Your task to perform on an android device: Open settings on Google Maps Image 0: 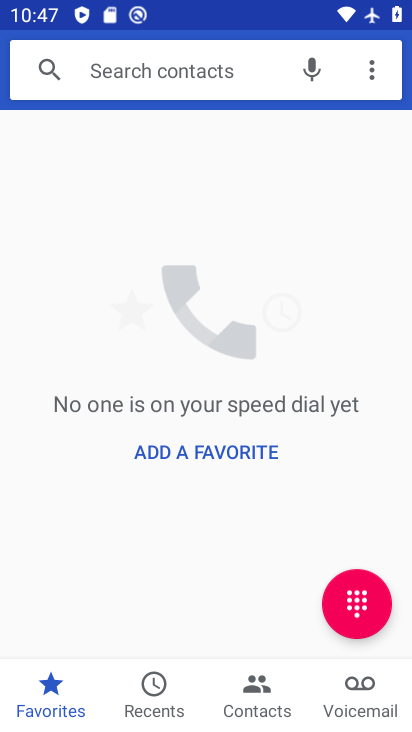
Step 0: press back button
Your task to perform on an android device: Open settings on Google Maps Image 1: 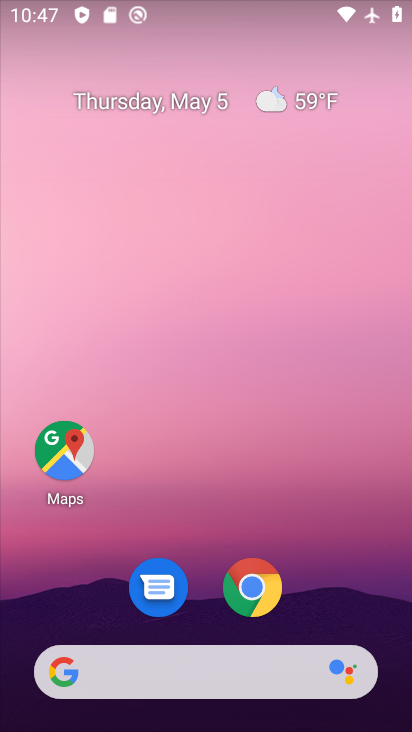
Step 1: drag from (322, 571) to (252, 3)
Your task to perform on an android device: Open settings on Google Maps Image 2: 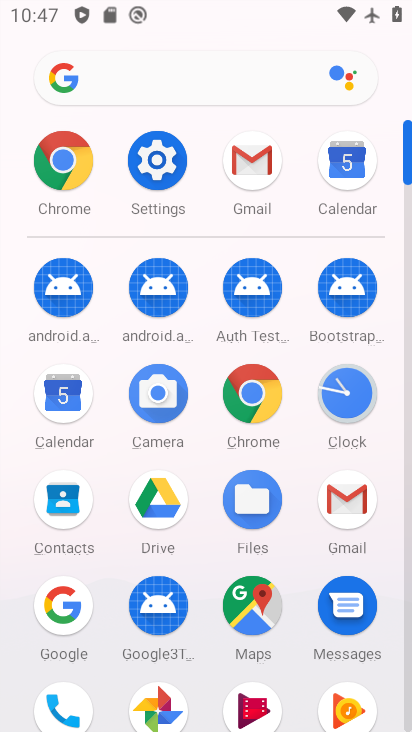
Step 2: drag from (12, 619) to (27, 207)
Your task to perform on an android device: Open settings on Google Maps Image 3: 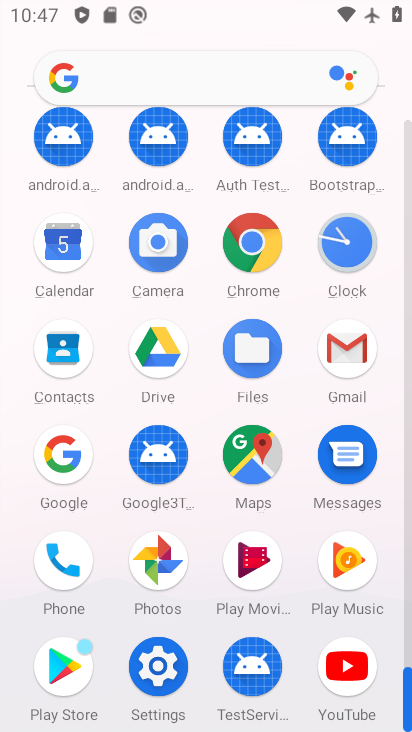
Step 3: click (252, 453)
Your task to perform on an android device: Open settings on Google Maps Image 4: 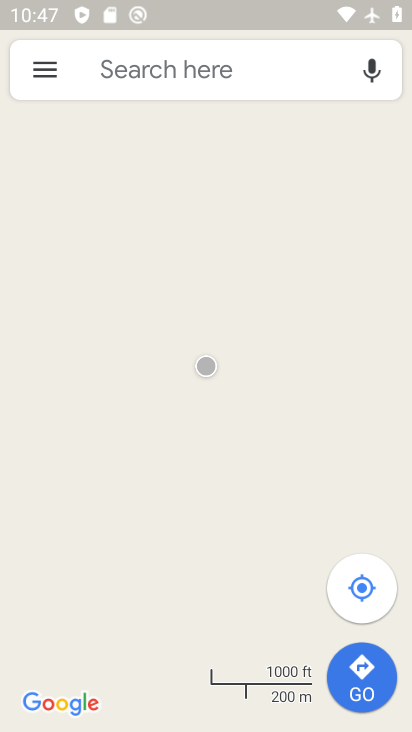
Step 4: click (267, 74)
Your task to perform on an android device: Open settings on Google Maps Image 5: 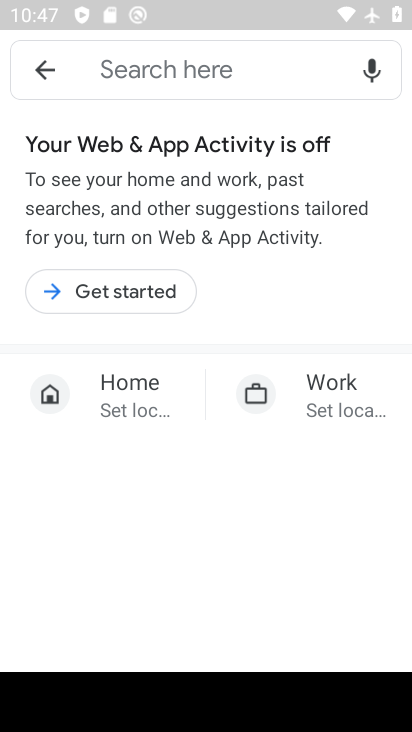
Step 5: click (44, 58)
Your task to perform on an android device: Open settings on Google Maps Image 6: 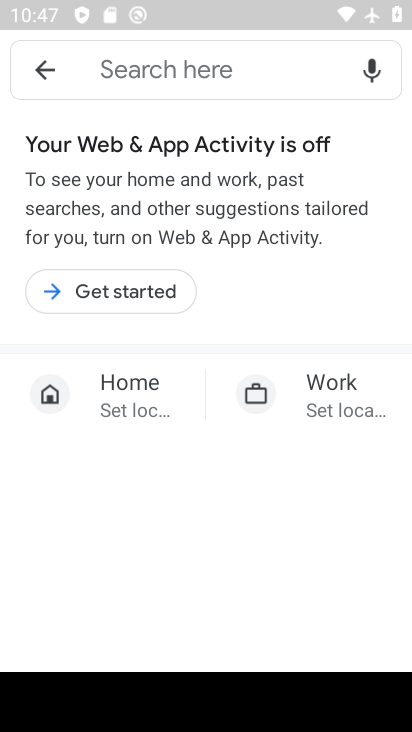
Step 6: click (39, 62)
Your task to perform on an android device: Open settings on Google Maps Image 7: 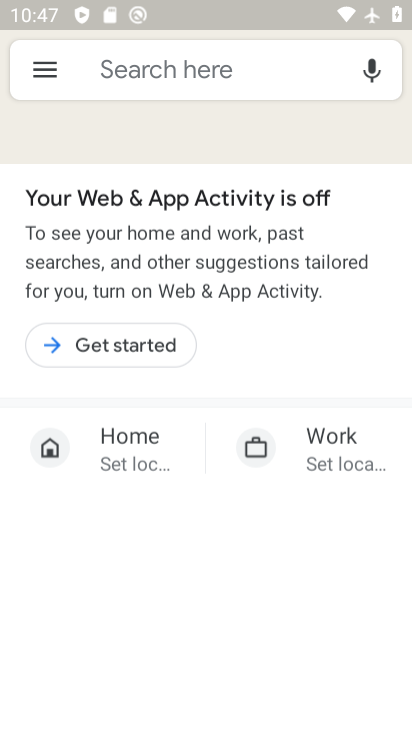
Step 7: click (39, 62)
Your task to perform on an android device: Open settings on Google Maps Image 8: 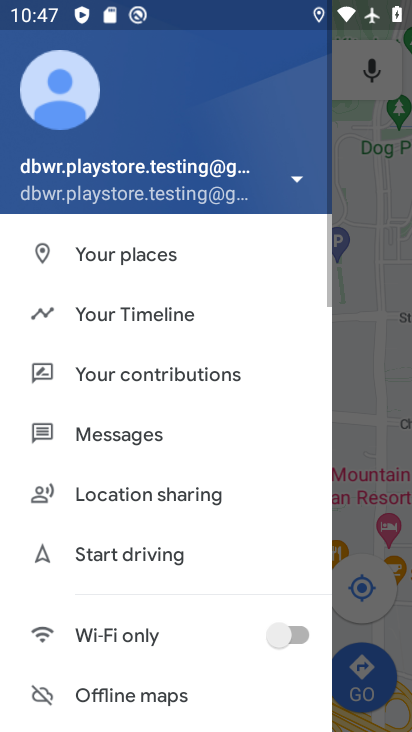
Step 8: click (39, 62)
Your task to perform on an android device: Open settings on Google Maps Image 9: 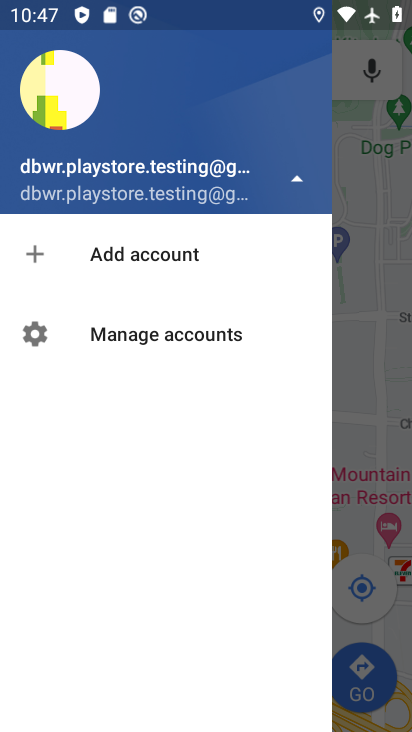
Step 9: click (118, 332)
Your task to perform on an android device: Open settings on Google Maps Image 10: 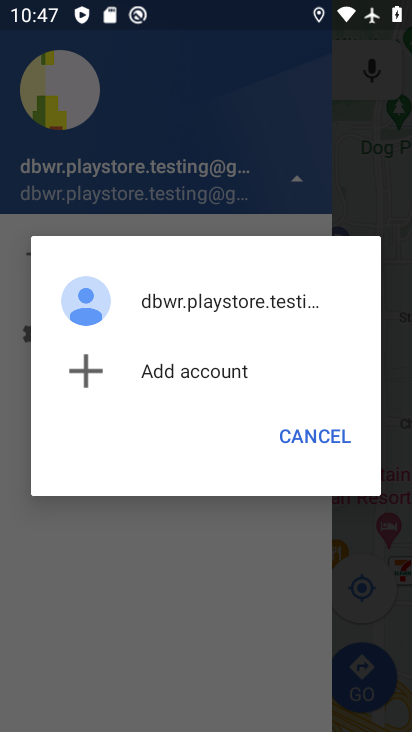
Step 10: click (164, 123)
Your task to perform on an android device: Open settings on Google Maps Image 11: 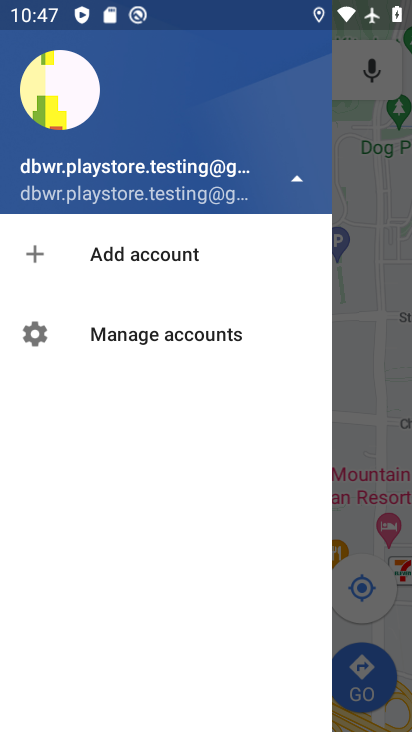
Step 11: click (362, 275)
Your task to perform on an android device: Open settings on Google Maps Image 12: 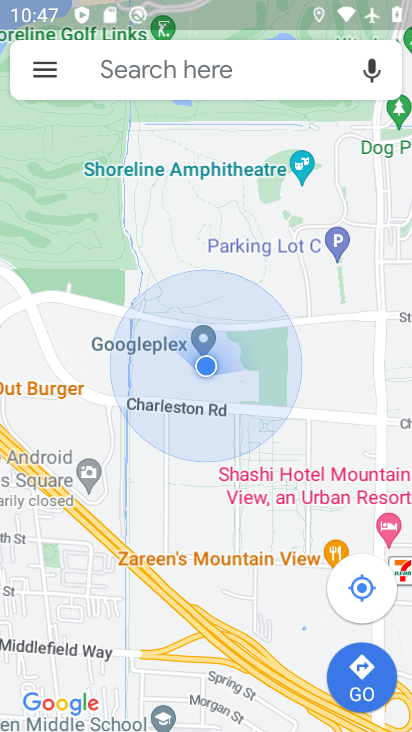
Step 12: click (42, 65)
Your task to perform on an android device: Open settings on Google Maps Image 13: 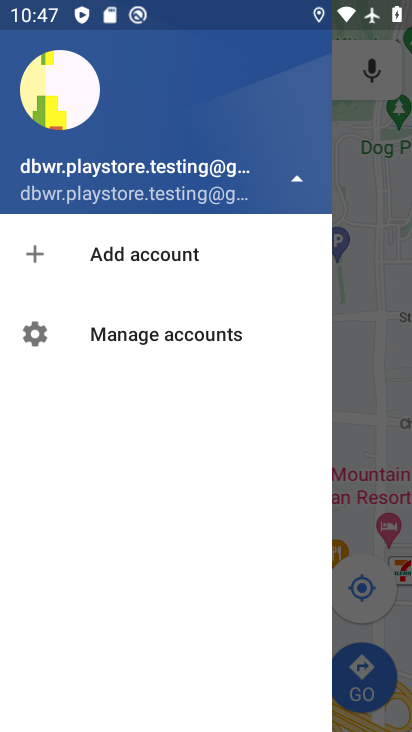
Step 13: drag from (179, 635) to (178, 251)
Your task to perform on an android device: Open settings on Google Maps Image 14: 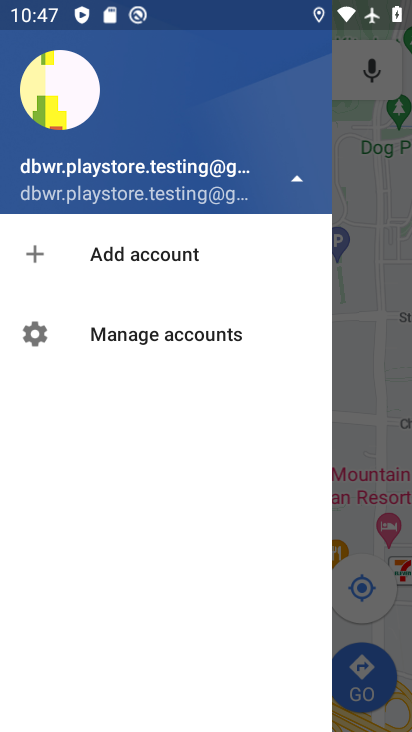
Step 14: click (100, 325)
Your task to perform on an android device: Open settings on Google Maps Image 15: 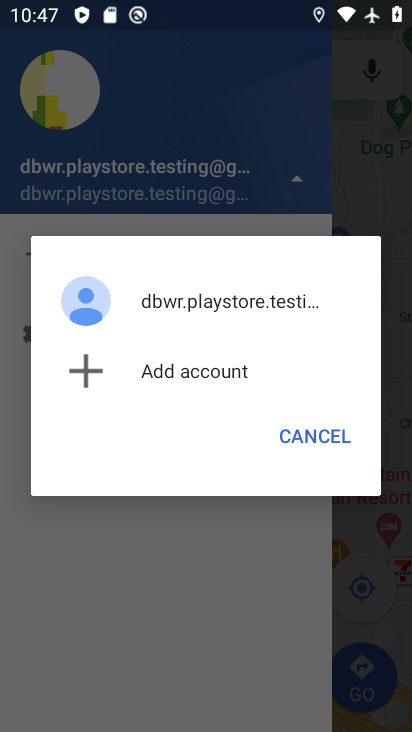
Step 15: click (251, 303)
Your task to perform on an android device: Open settings on Google Maps Image 16: 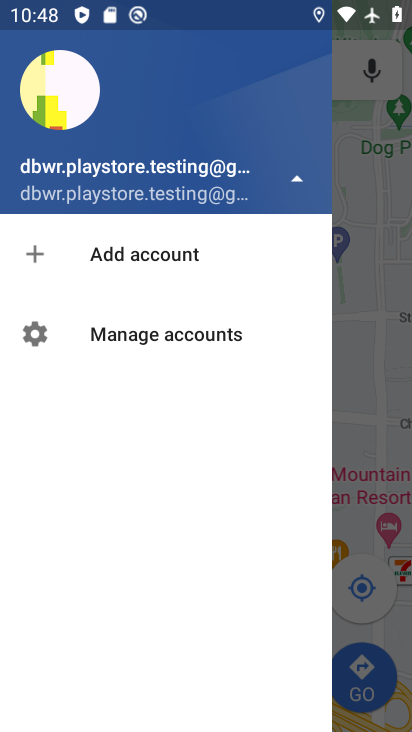
Step 16: click (305, 170)
Your task to perform on an android device: Open settings on Google Maps Image 17: 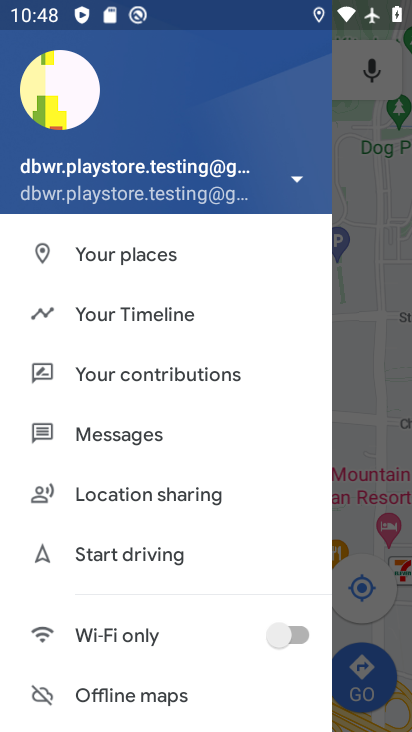
Step 17: drag from (190, 641) to (235, 175)
Your task to perform on an android device: Open settings on Google Maps Image 18: 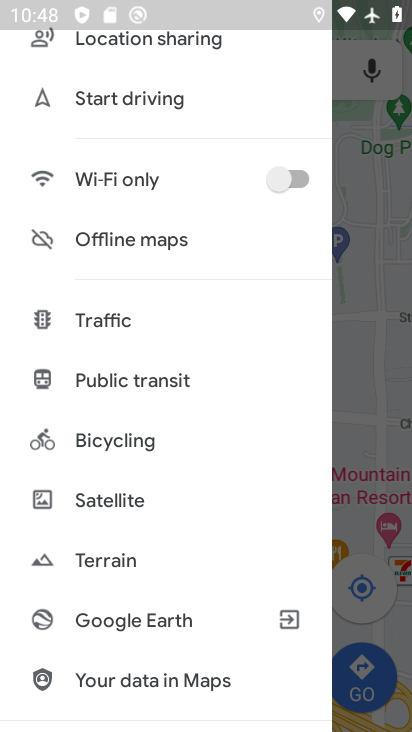
Step 18: drag from (113, 597) to (143, 170)
Your task to perform on an android device: Open settings on Google Maps Image 19: 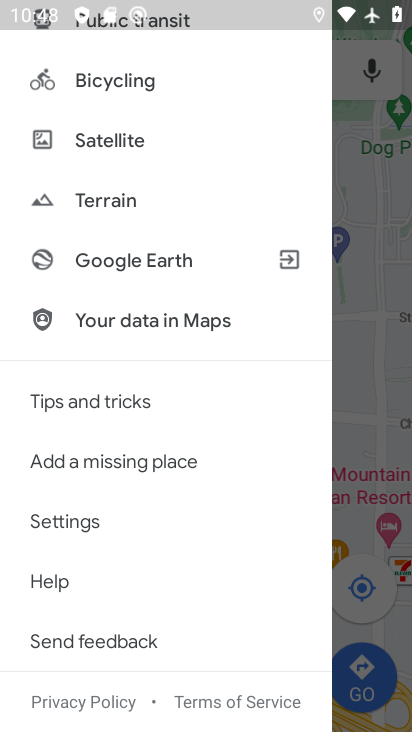
Step 19: click (78, 520)
Your task to perform on an android device: Open settings on Google Maps Image 20: 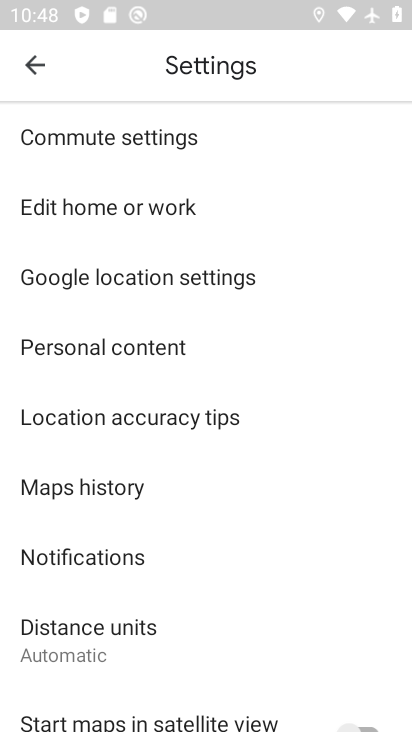
Step 20: task complete